Your task to perform on an android device: all mails in gmail Image 0: 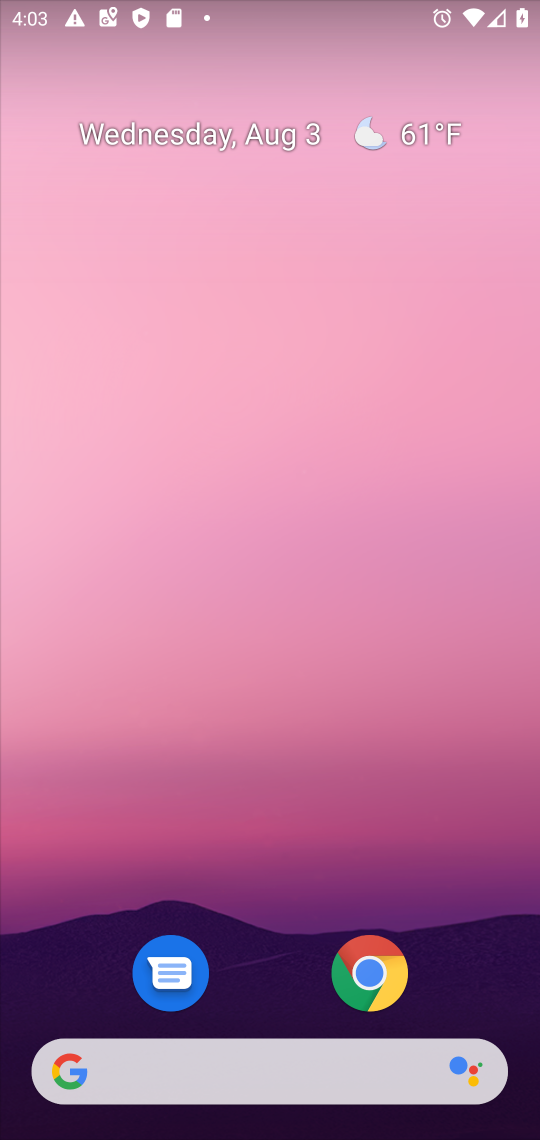
Step 0: drag from (269, 656) to (252, 51)
Your task to perform on an android device: all mails in gmail Image 1: 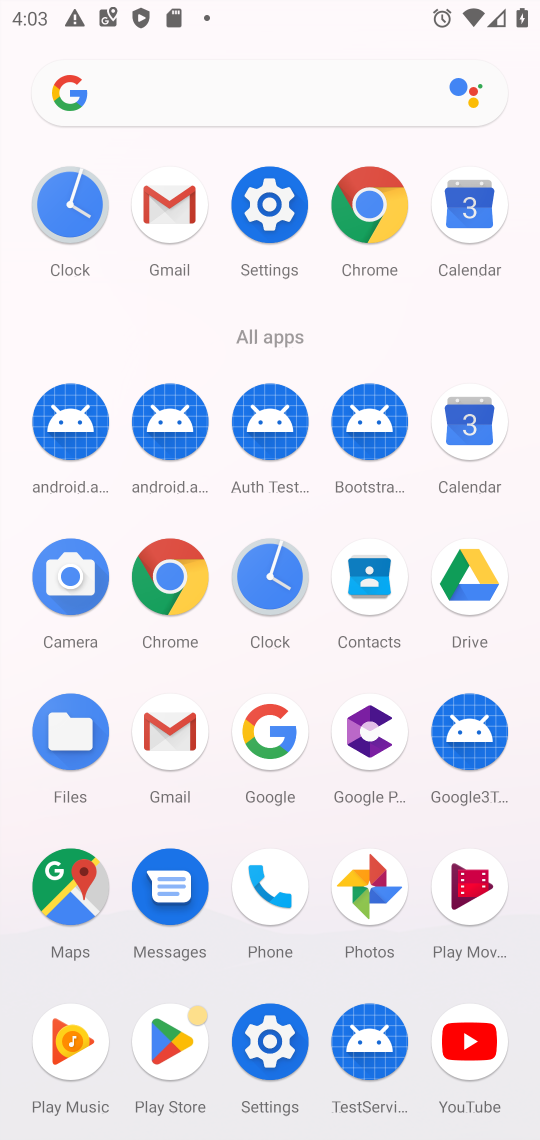
Step 1: click (172, 208)
Your task to perform on an android device: all mails in gmail Image 2: 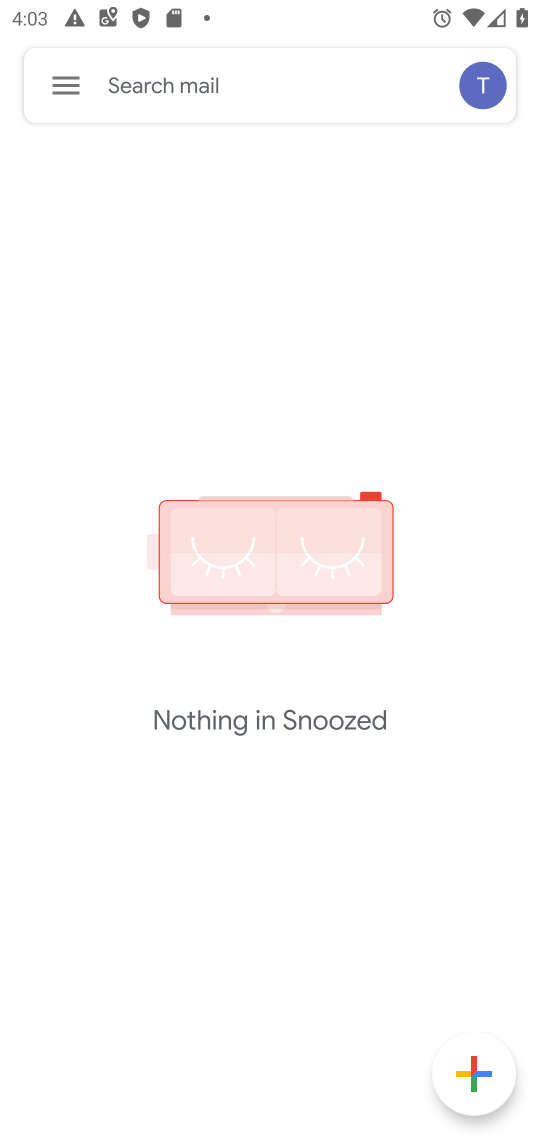
Step 2: click (63, 84)
Your task to perform on an android device: all mails in gmail Image 3: 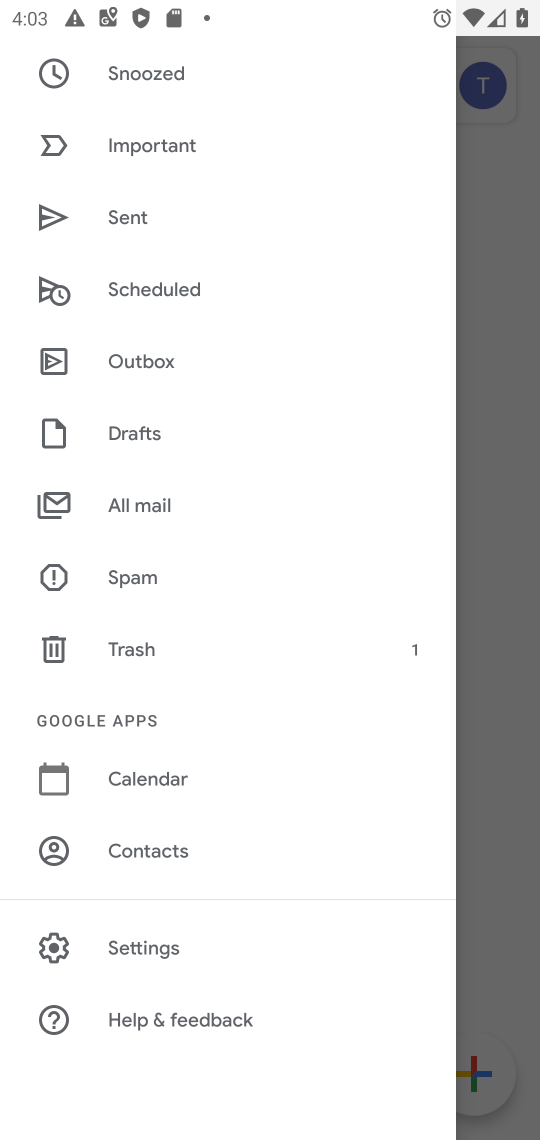
Step 3: click (143, 494)
Your task to perform on an android device: all mails in gmail Image 4: 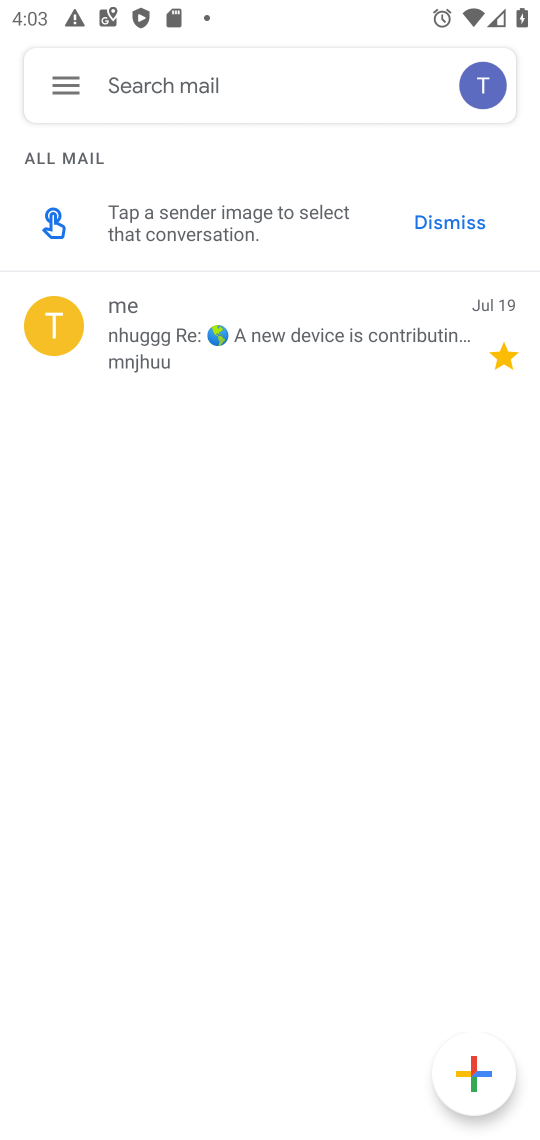
Step 4: task complete